Your task to perform on an android device: turn off translation in the chrome app Image 0: 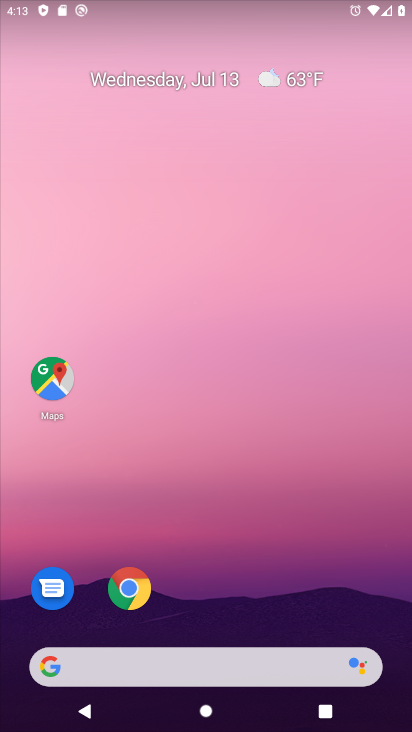
Step 0: drag from (230, 676) to (272, 155)
Your task to perform on an android device: turn off translation in the chrome app Image 1: 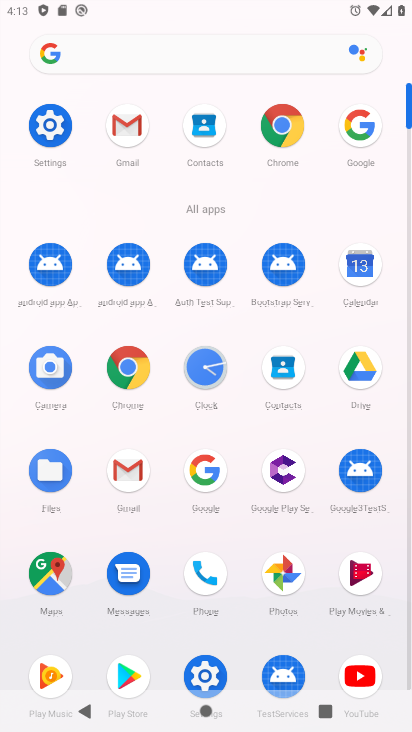
Step 1: click (283, 128)
Your task to perform on an android device: turn off translation in the chrome app Image 2: 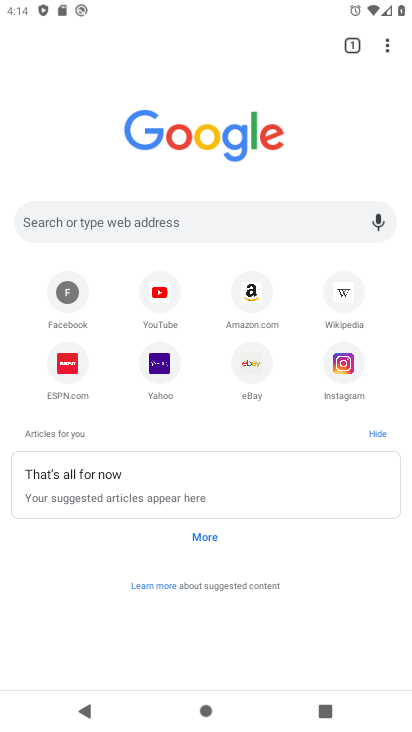
Step 2: click (388, 46)
Your task to perform on an android device: turn off translation in the chrome app Image 3: 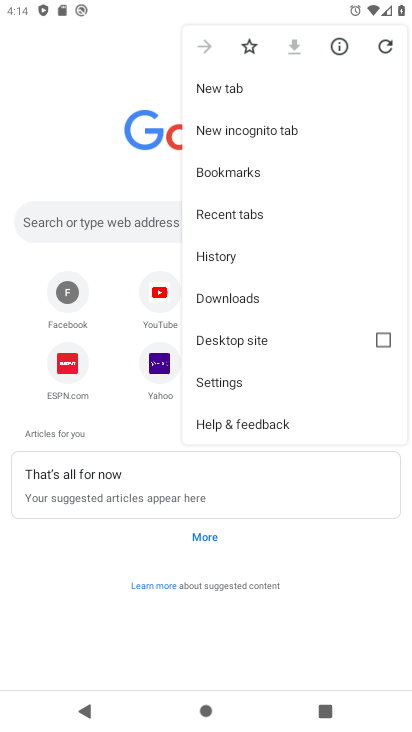
Step 3: click (226, 381)
Your task to perform on an android device: turn off translation in the chrome app Image 4: 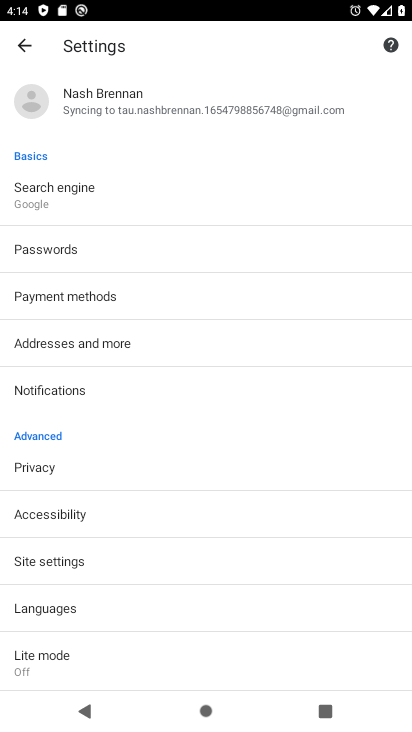
Step 4: click (45, 607)
Your task to perform on an android device: turn off translation in the chrome app Image 5: 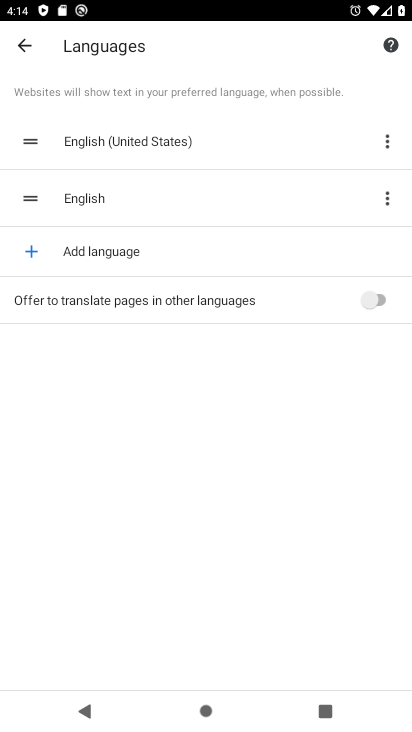
Step 5: task complete